Your task to perform on an android device: create a new album in the google photos Image 0: 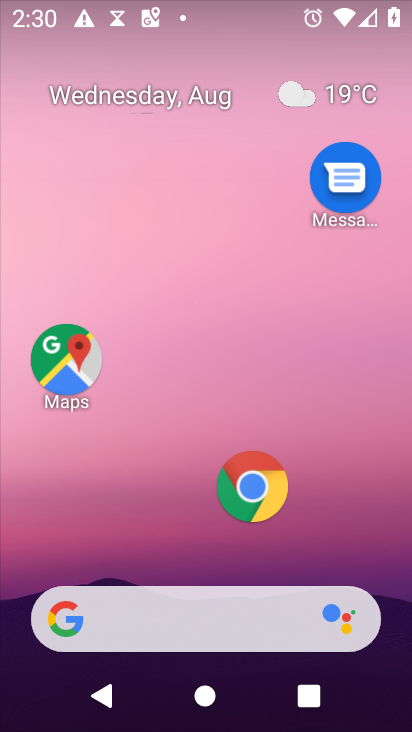
Step 0: drag from (105, 485) to (123, 8)
Your task to perform on an android device: create a new album in the google photos Image 1: 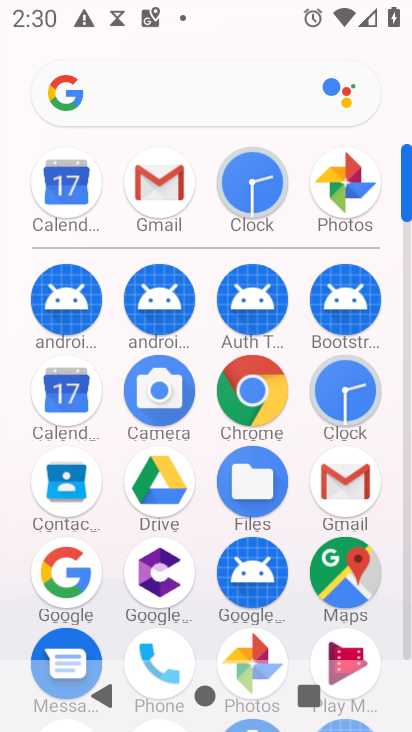
Step 1: click (337, 171)
Your task to perform on an android device: create a new album in the google photos Image 2: 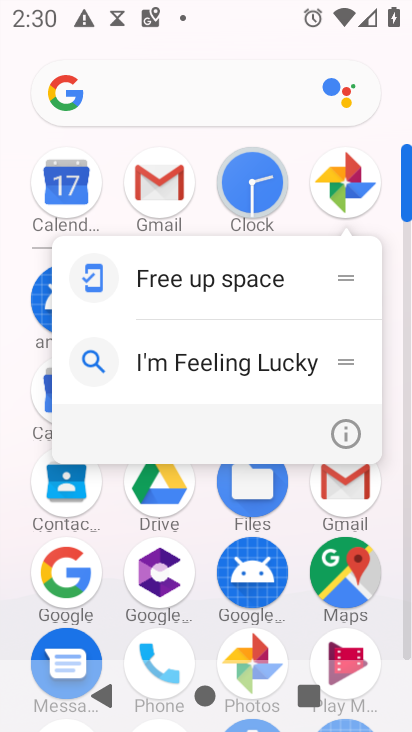
Step 2: click (338, 185)
Your task to perform on an android device: create a new album in the google photos Image 3: 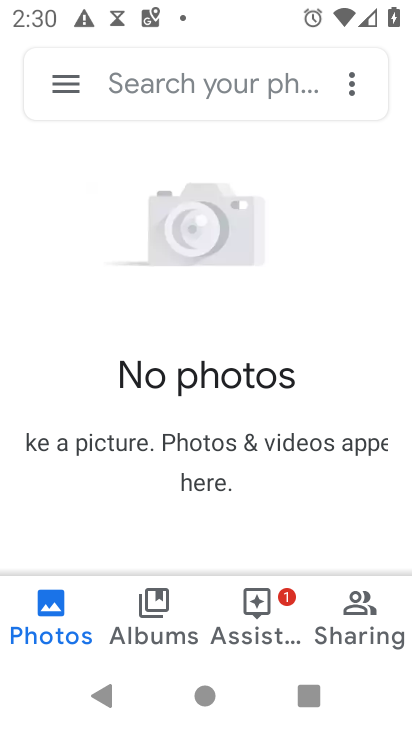
Step 3: click (163, 611)
Your task to perform on an android device: create a new album in the google photos Image 4: 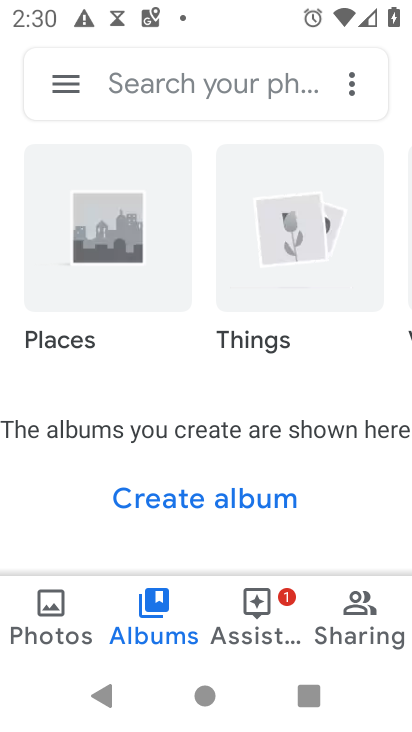
Step 4: click (223, 489)
Your task to perform on an android device: create a new album in the google photos Image 5: 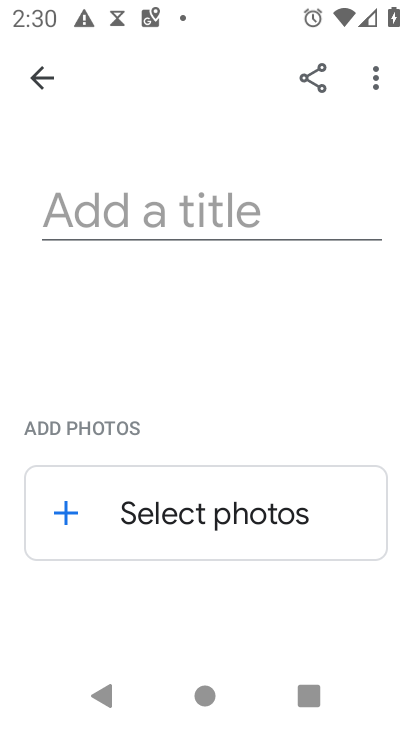
Step 5: click (162, 213)
Your task to perform on an android device: create a new album in the google photos Image 6: 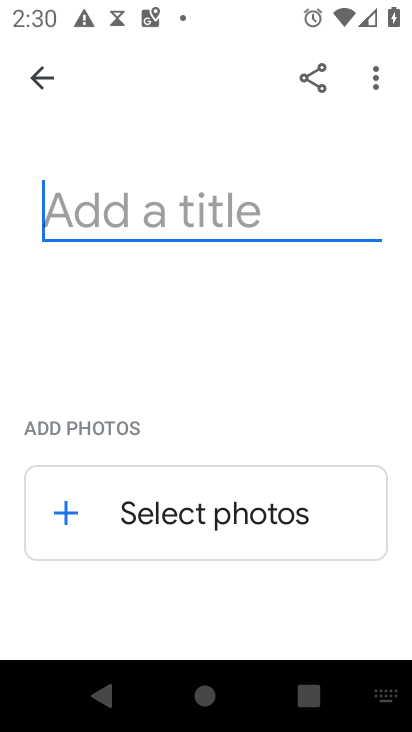
Step 6: type " cv c "
Your task to perform on an android device: create a new album in the google photos Image 7: 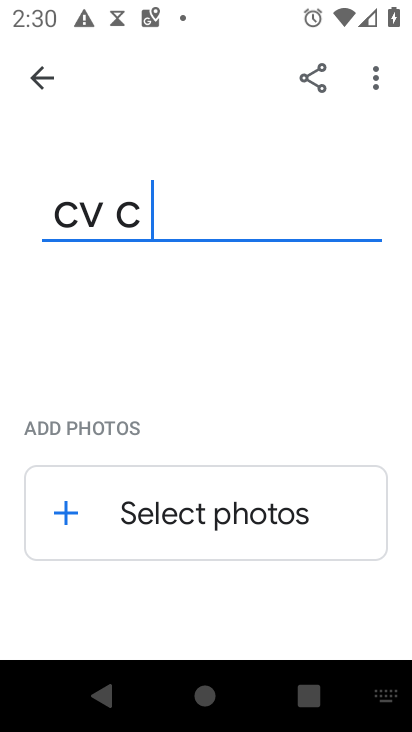
Step 7: click (171, 508)
Your task to perform on an android device: create a new album in the google photos Image 8: 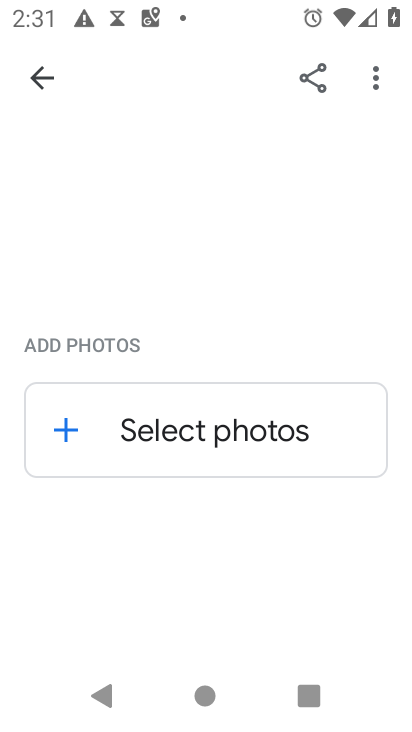
Step 8: click (154, 437)
Your task to perform on an android device: create a new album in the google photos Image 9: 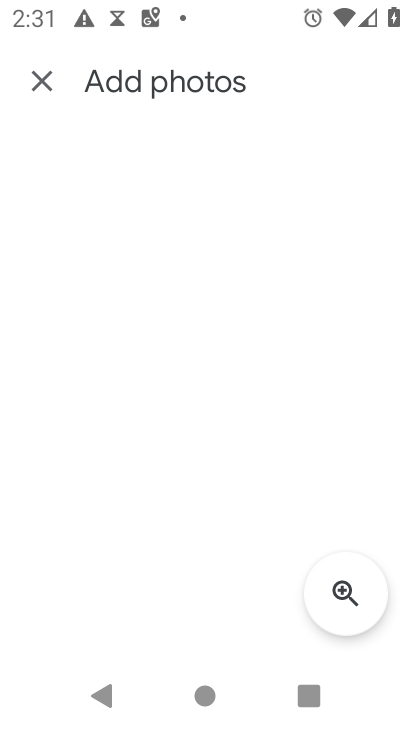
Step 9: task complete